Your task to perform on an android device: change alarm snooze length Image 0: 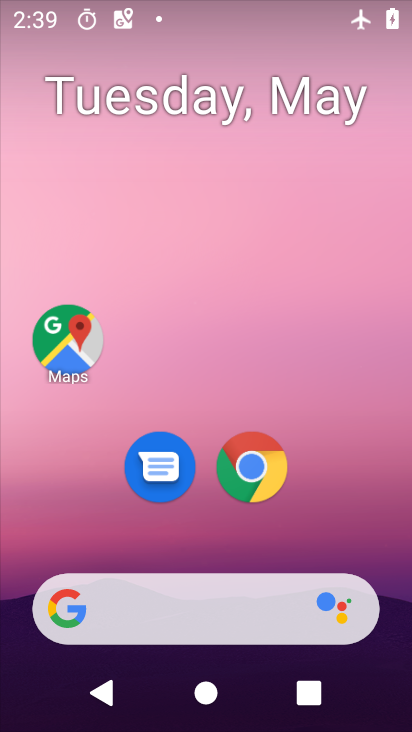
Step 0: drag from (382, 550) to (375, 116)
Your task to perform on an android device: change alarm snooze length Image 1: 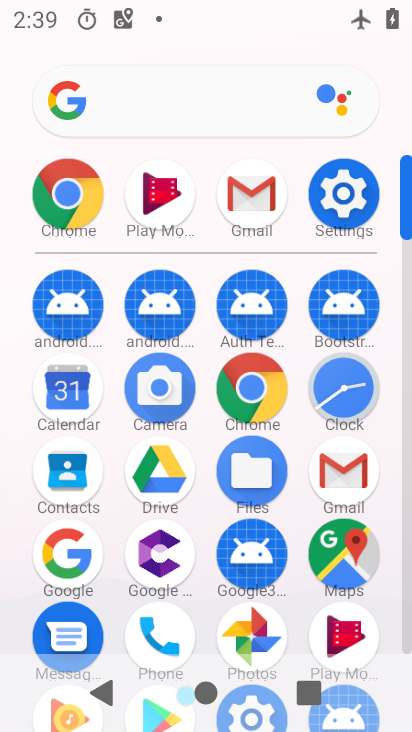
Step 1: click (346, 391)
Your task to perform on an android device: change alarm snooze length Image 2: 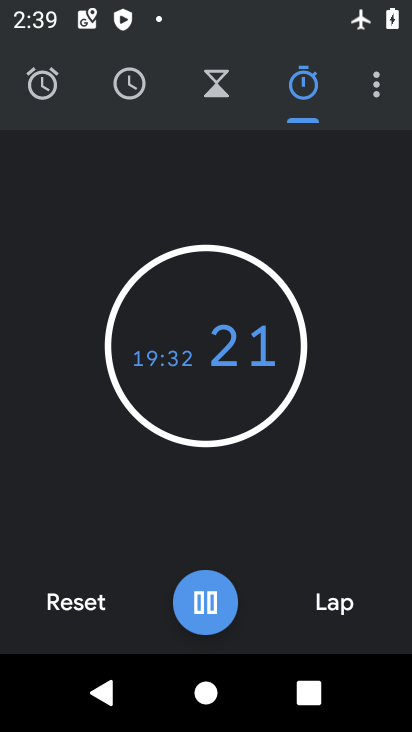
Step 2: click (374, 100)
Your task to perform on an android device: change alarm snooze length Image 3: 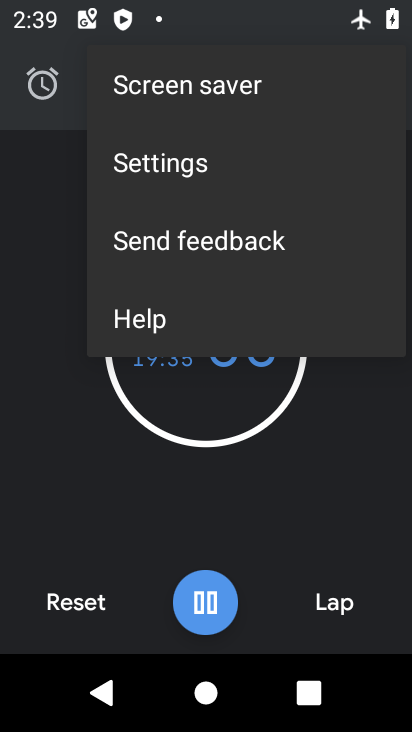
Step 3: click (323, 180)
Your task to perform on an android device: change alarm snooze length Image 4: 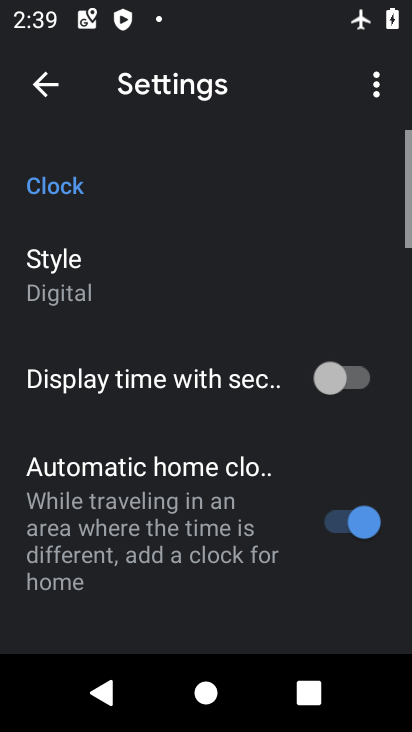
Step 4: drag from (344, 315) to (344, 237)
Your task to perform on an android device: change alarm snooze length Image 5: 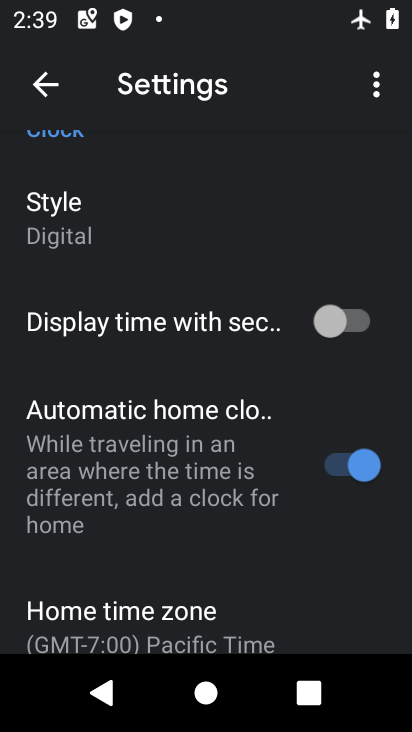
Step 5: drag from (318, 381) to (323, 262)
Your task to perform on an android device: change alarm snooze length Image 6: 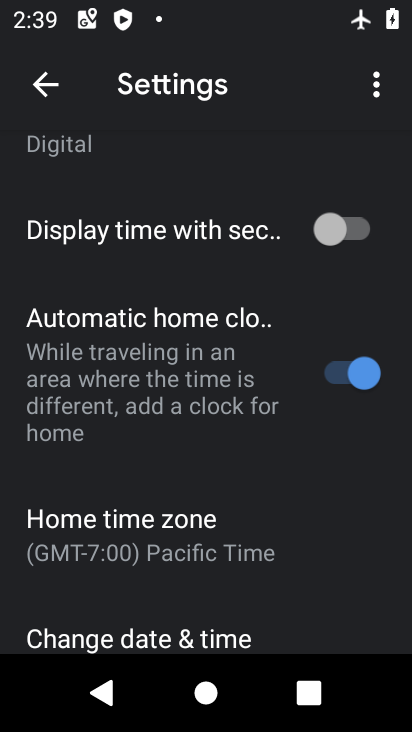
Step 6: drag from (303, 423) to (308, 269)
Your task to perform on an android device: change alarm snooze length Image 7: 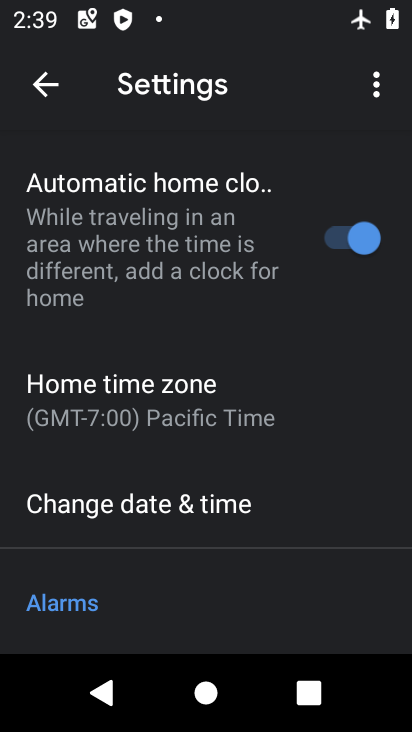
Step 7: drag from (334, 457) to (334, 341)
Your task to perform on an android device: change alarm snooze length Image 8: 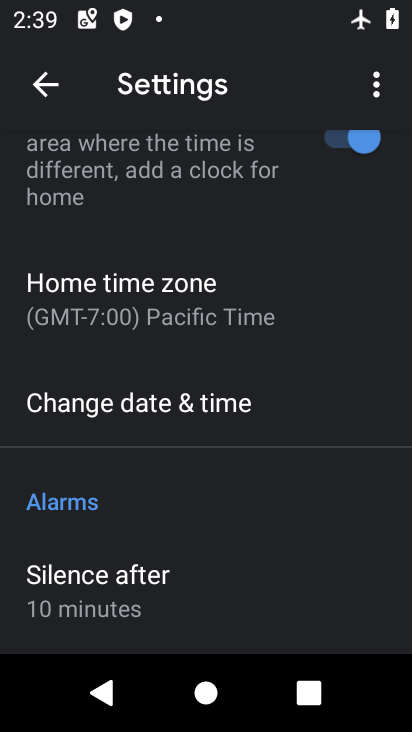
Step 8: drag from (336, 460) to (346, 349)
Your task to perform on an android device: change alarm snooze length Image 9: 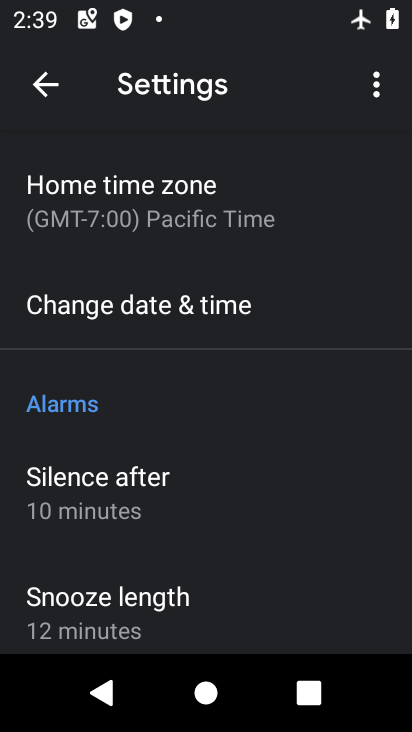
Step 9: drag from (325, 480) to (335, 230)
Your task to perform on an android device: change alarm snooze length Image 10: 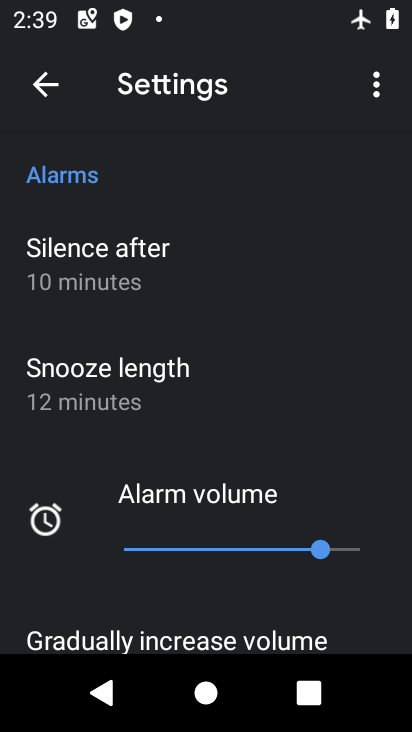
Step 10: click (171, 405)
Your task to perform on an android device: change alarm snooze length Image 11: 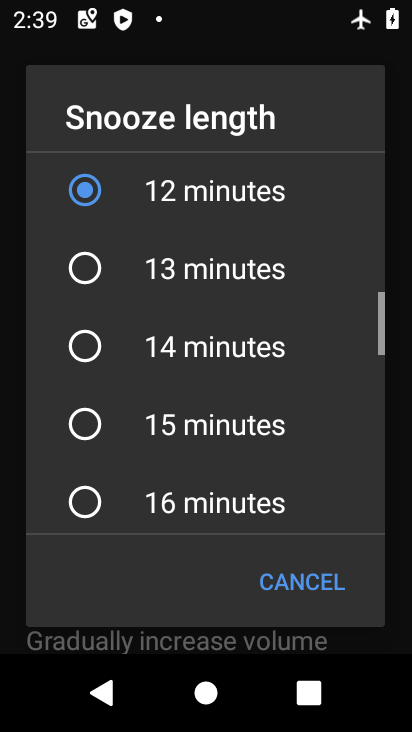
Step 11: click (195, 445)
Your task to perform on an android device: change alarm snooze length Image 12: 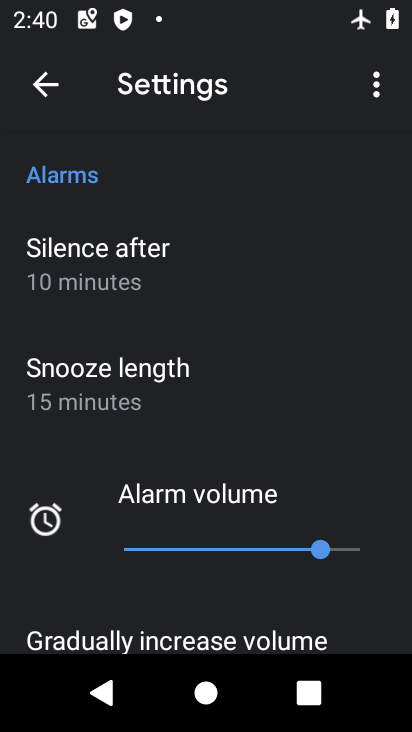
Step 12: task complete